Your task to perform on an android device: open app "eBay: The shopping marketplace" (install if not already installed) and enter user name: "articulated@icloud.com" and password: "excluding" Image 0: 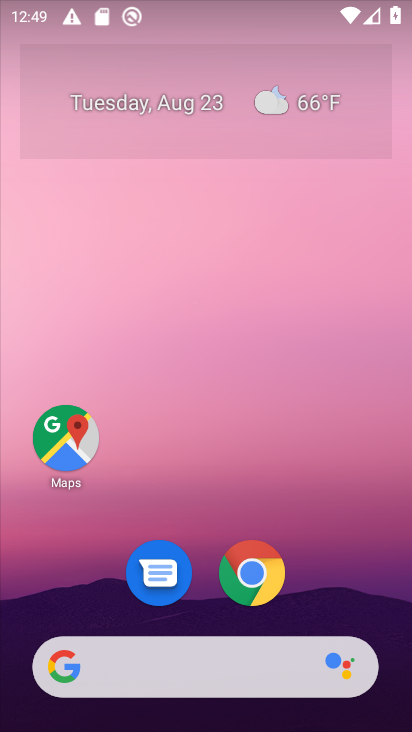
Step 0: drag from (211, 505) to (218, 146)
Your task to perform on an android device: open app "eBay: The shopping marketplace" (install if not already installed) and enter user name: "articulated@icloud.com" and password: "excluding" Image 1: 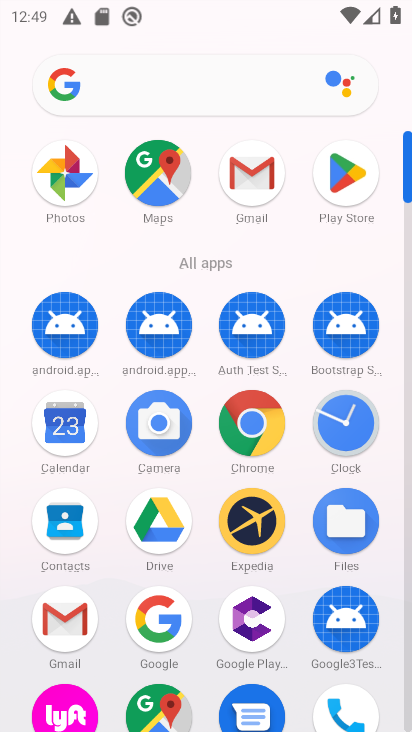
Step 1: click (354, 188)
Your task to perform on an android device: open app "eBay: The shopping marketplace" (install if not already installed) and enter user name: "articulated@icloud.com" and password: "excluding" Image 2: 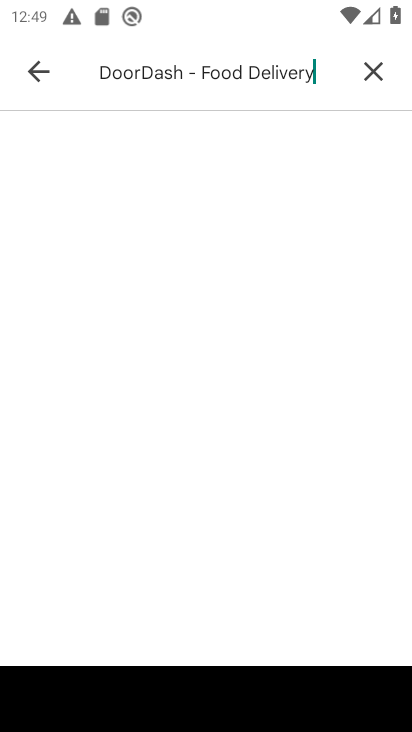
Step 2: click (370, 71)
Your task to perform on an android device: open app "eBay: The shopping marketplace" (install if not already installed) and enter user name: "articulated@icloud.com" and password: "excluding" Image 3: 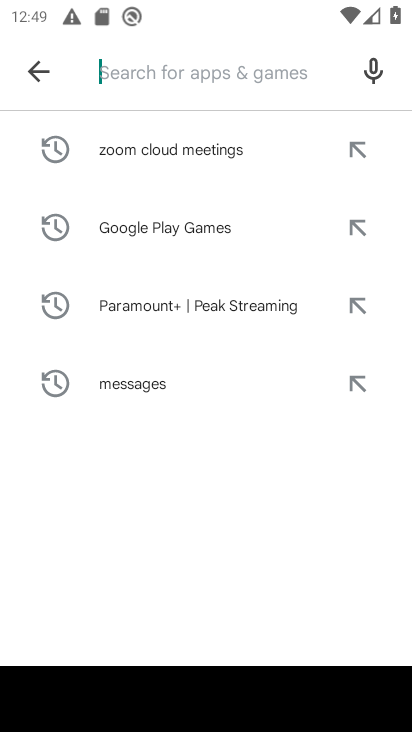
Step 3: type "eBay: The shopping marketplace"
Your task to perform on an android device: open app "eBay: The shopping marketplace" (install if not already installed) and enter user name: "articulated@icloud.com" and password: "excluding" Image 4: 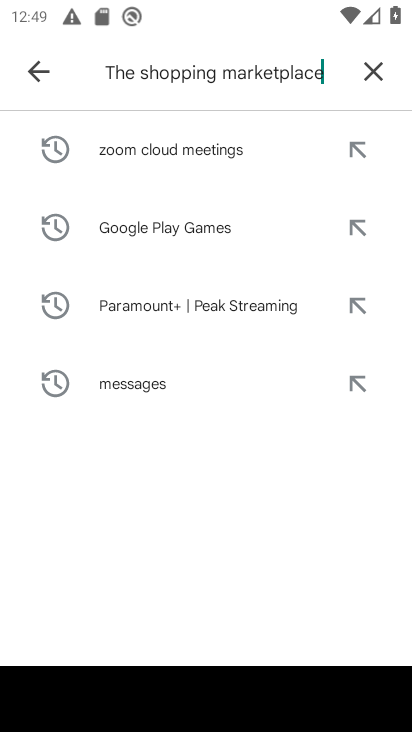
Step 4: type ""
Your task to perform on an android device: open app "eBay: The shopping marketplace" (install if not already installed) and enter user name: "articulated@icloud.com" and password: "excluding" Image 5: 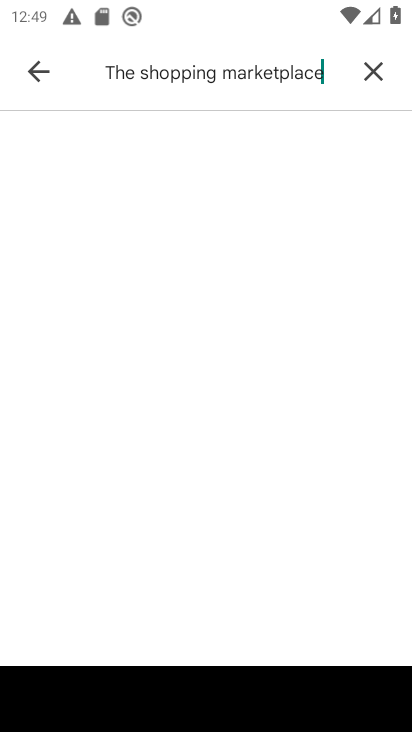
Step 5: task complete